Your task to perform on an android device: turn on javascript in the chrome app Image 0: 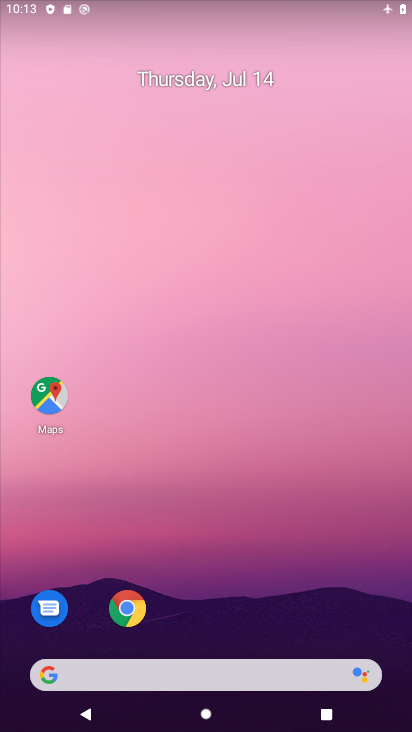
Step 0: drag from (247, 602) to (198, 45)
Your task to perform on an android device: turn on javascript in the chrome app Image 1: 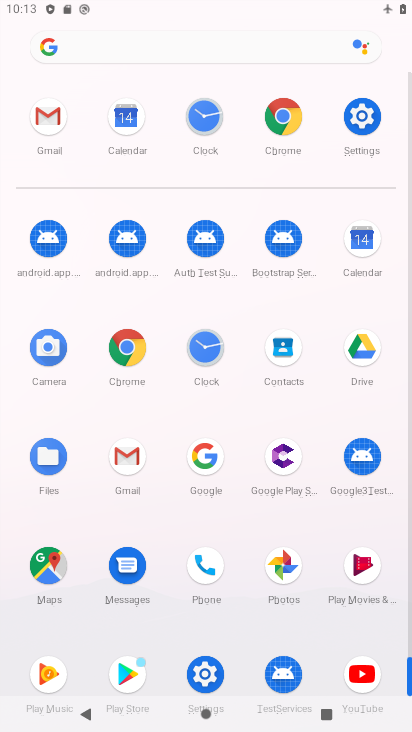
Step 1: click (120, 367)
Your task to perform on an android device: turn on javascript in the chrome app Image 2: 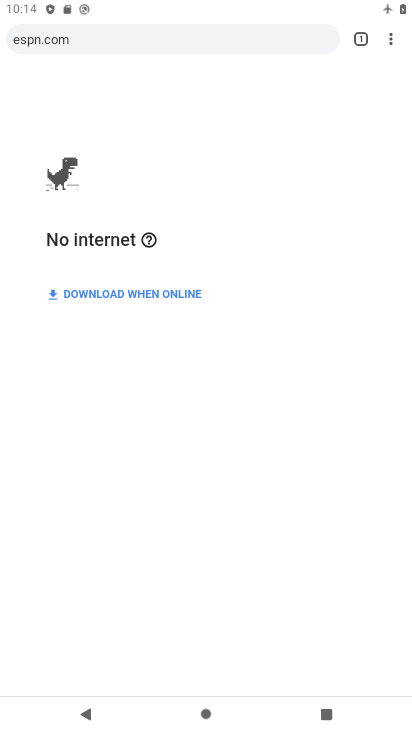
Step 2: click (395, 43)
Your task to perform on an android device: turn on javascript in the chrome app Image 3: 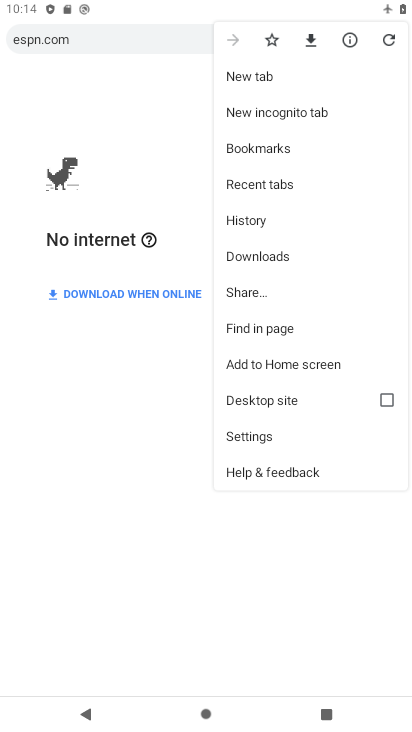
Step 3: click (263, 436)
Your task to perform on an android device: turn on javascript in the chrome app Image 4: 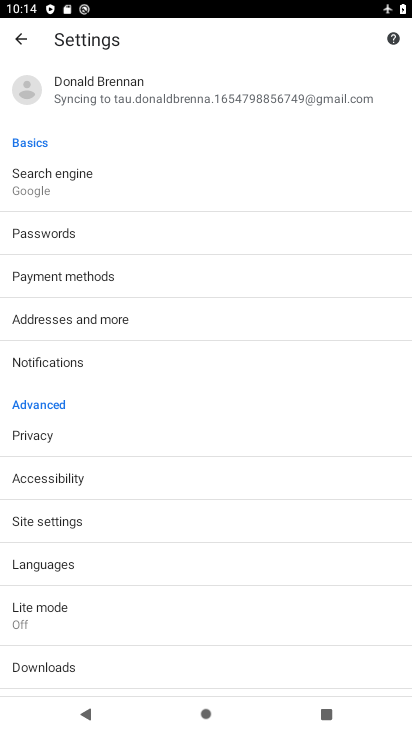
Step 4: click (72, 525)
Your task to perform on an android device: turn on javascript in the chrome app Image 5: 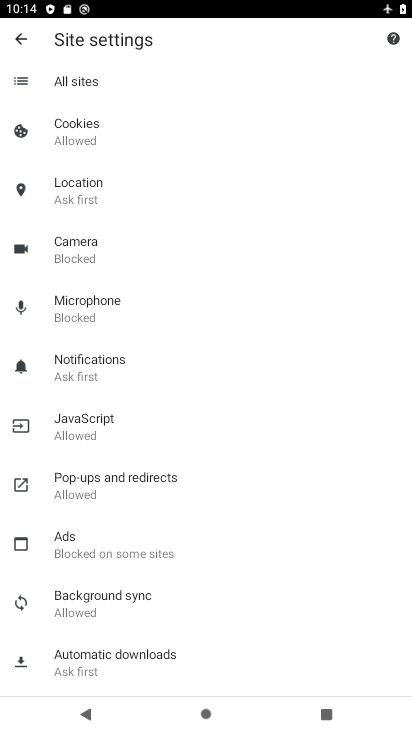
Step 5: click (114, 434)
Your task to perform on an android device: turn on javascript in the chrome app Image 6: 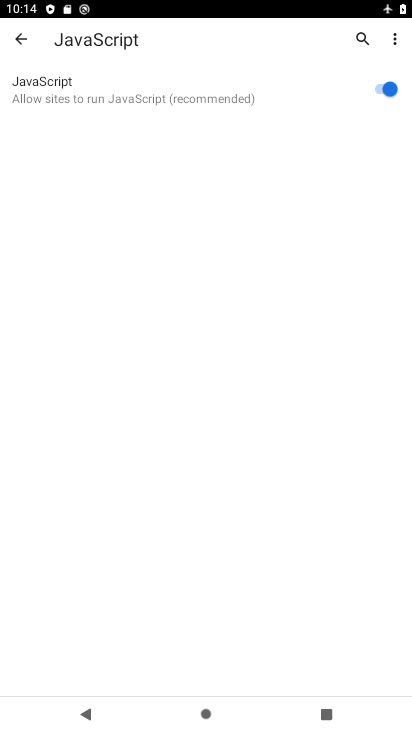
Step 6: task complete